Your task to perform on an android device: Open notification settings Image 0: 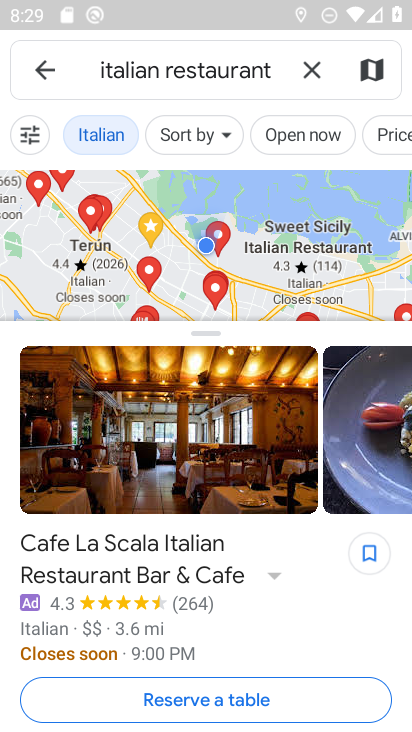
Step 0: press home button
Your task to perform on an android device: Open notification settings Image 1: 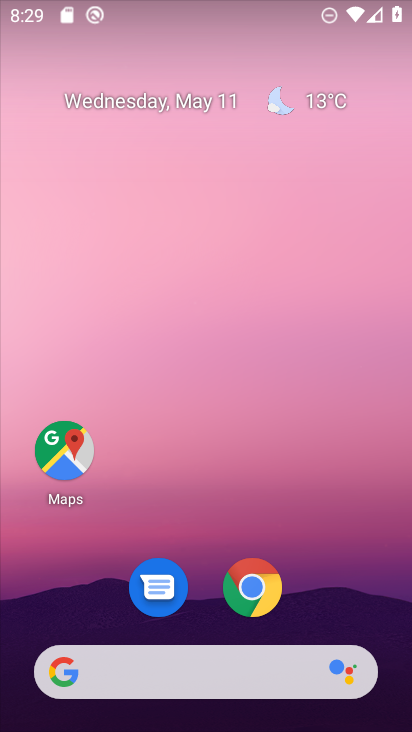
Step 1: drag from (329, 519) to (245, 165)
Your task to perform on an android device: Open notification settings Image 2: 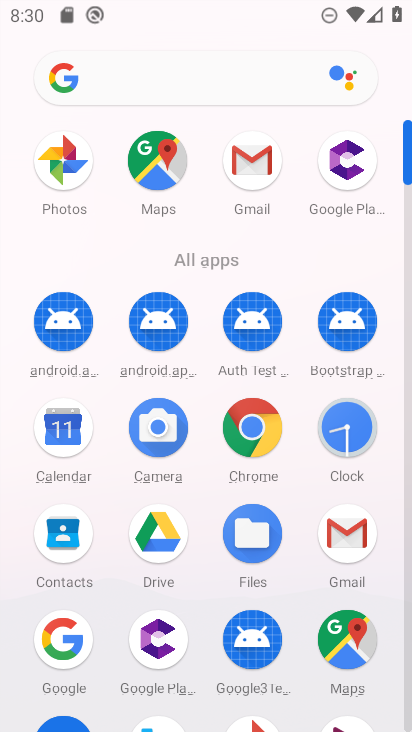
Step 2: drag from (217, 275) to (186, 45)
Your task to perform on an android device: Open notification settings Image 3: 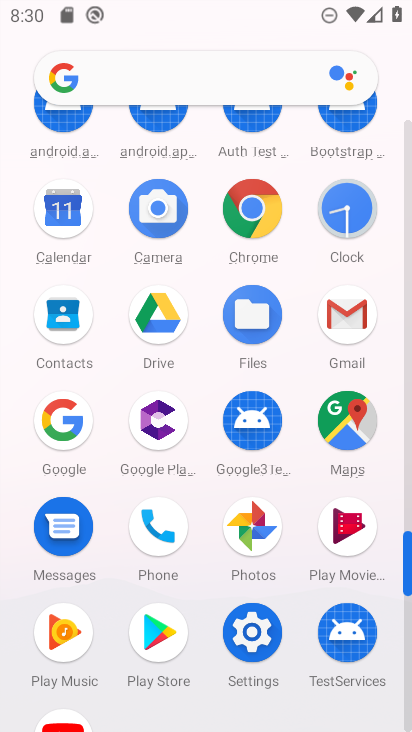
Step 3: click (264, 626)
Your task to perform on an android device: Open notification settings Image 4: 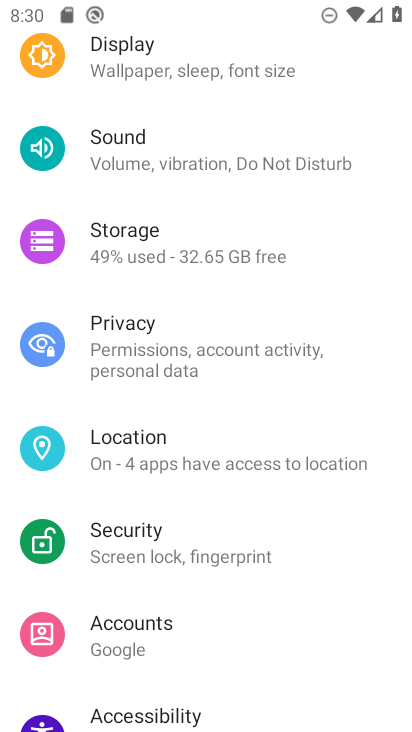
Step 4: drag from (193, 122) to (184, 493)
Your task to perform on an android device: Open notification settings Image 5: 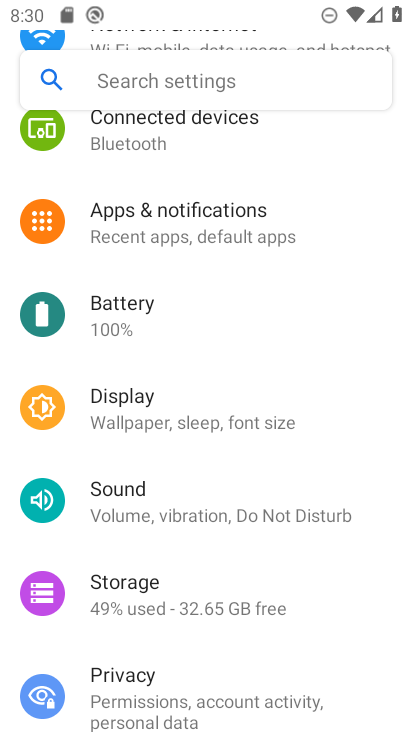
Step 5: click (242, 239)
Your task to perform on an android device: Open notification settings Image 6: 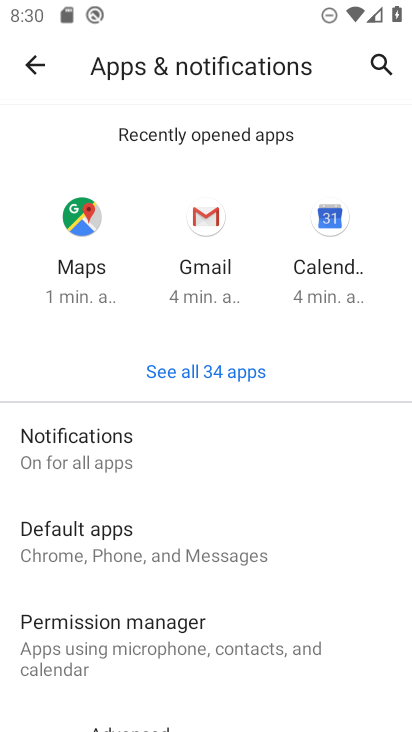
Step 6: click (171, 437)
Your task to perform on an android device: Open notification settings Image 7: 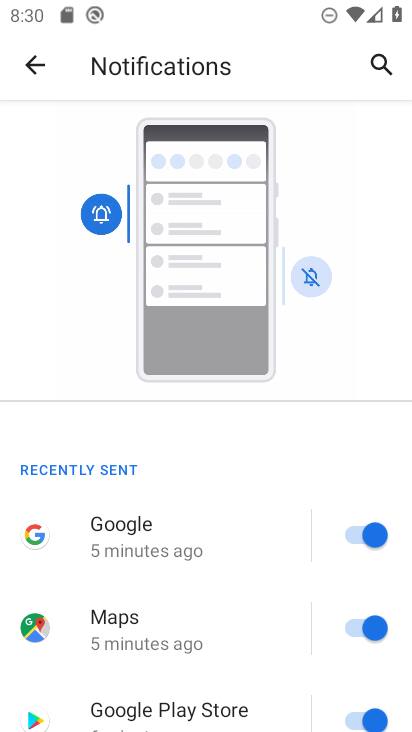
Step 7: task complete